Your task to perform on an android device: Do I have any events this weekend? Image 0: 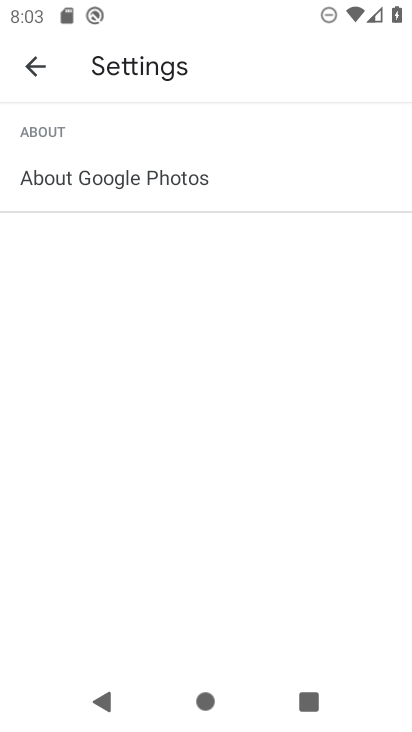
Step 0: press home button
Your task to perform on an android device: Do I have any events this weekend? Image 1: 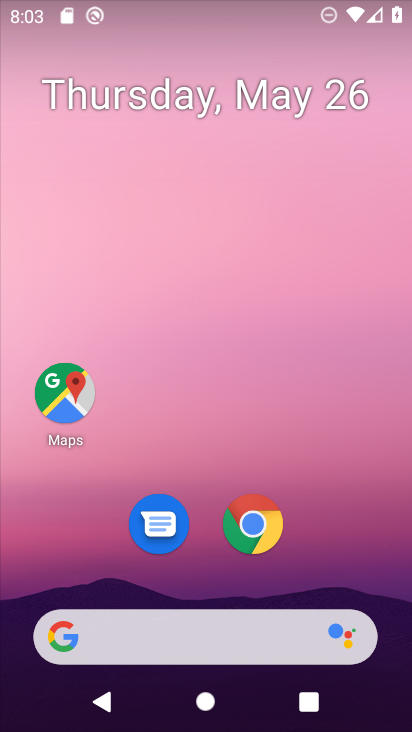
Step 1: drag from (192, 443) to (219, 3)
Your task to perform on an android device: Do I have any events this weekend? Image 2: 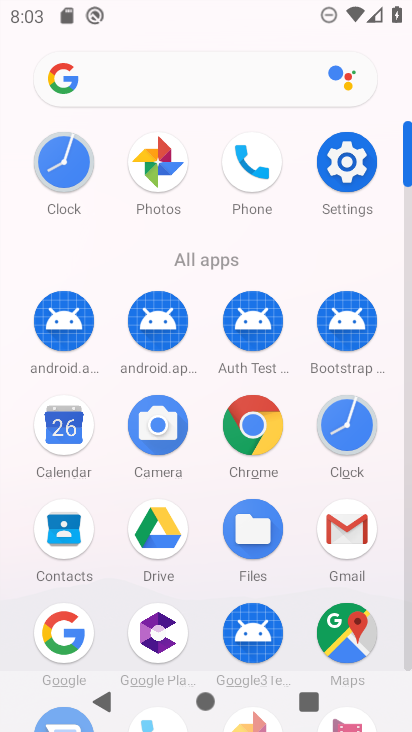
Step 2: click (66, 417)
Your task to perform on an android device: Do I have any events this weekend? Image 3: 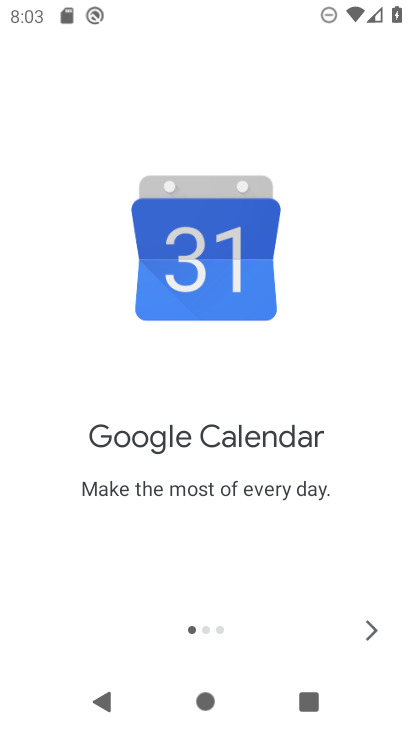
Step 3: click (369, 624)
Your task to perform on an android device: Do I have any events this weekend? Image 4: 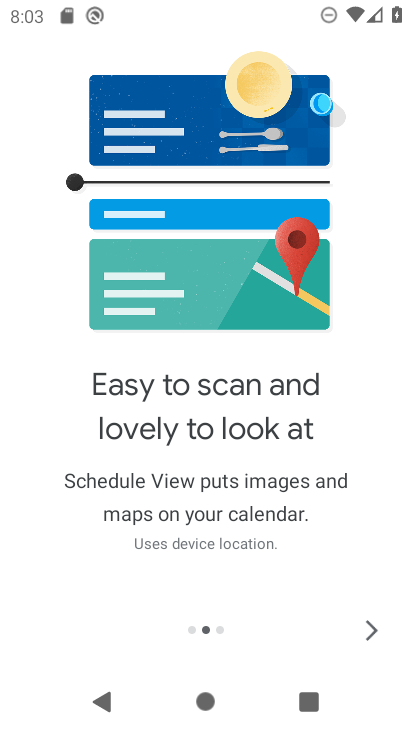
Step 4: click (366, 621)
Your task to perform on an android device: Do I have any events this weekend? Image 5: 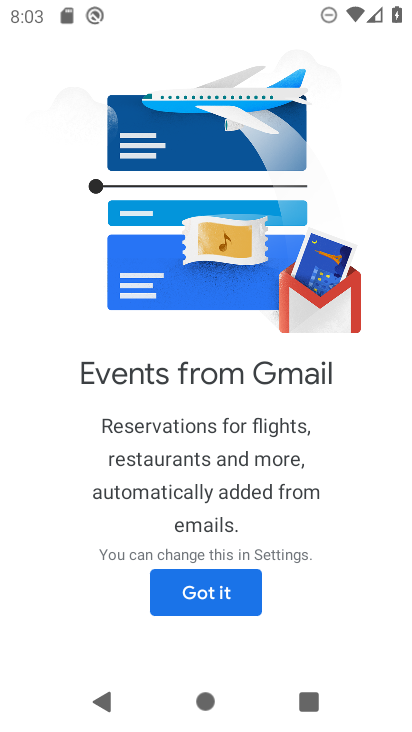
Step 5: click (250, 589)
Your task to perform on an android device: Do I have any events this weekend? Image 6: 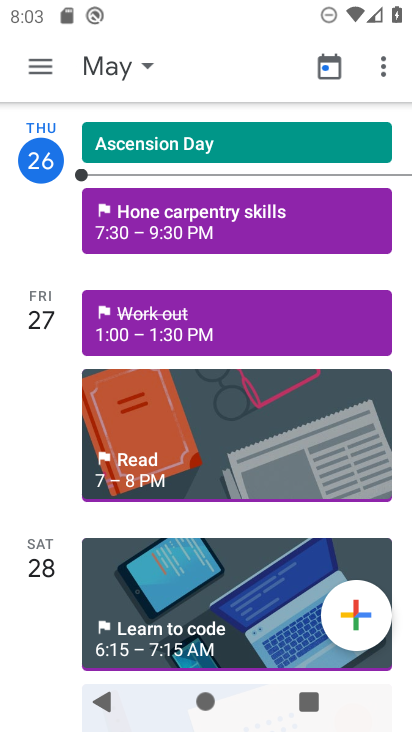
Step 6: task complete